Your task to perform on an android device: refresh tabs in the chrome app Image 0: 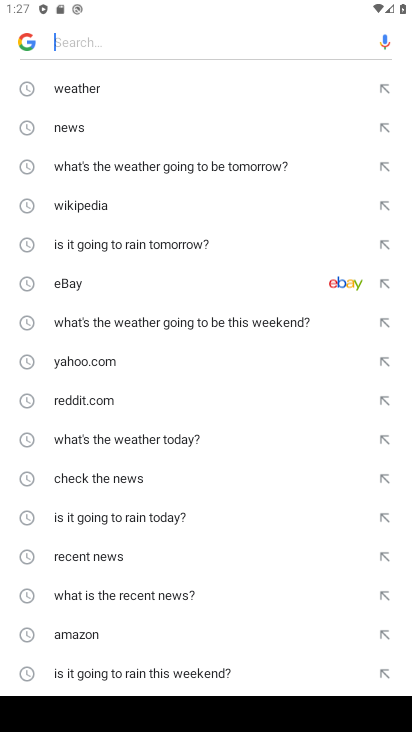
Step 0: press home button
Your task to perform on an android device: refresh tabs in the chrome app Image 1: 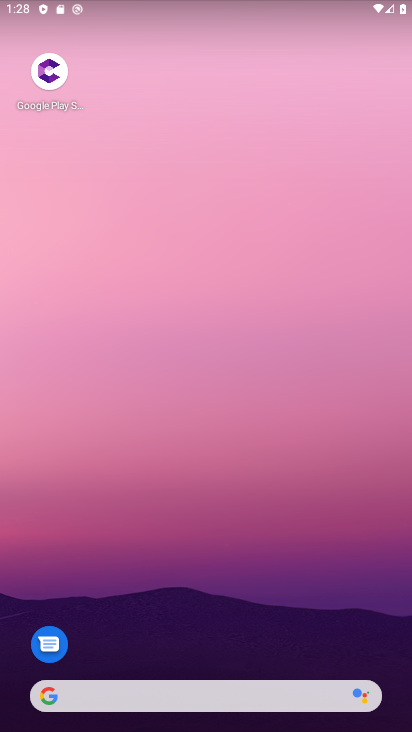
Step 1: drag from (16, 455) to (411, 457)
Your task to perform on an android device: refresh tabs in the chrome app Image 2: 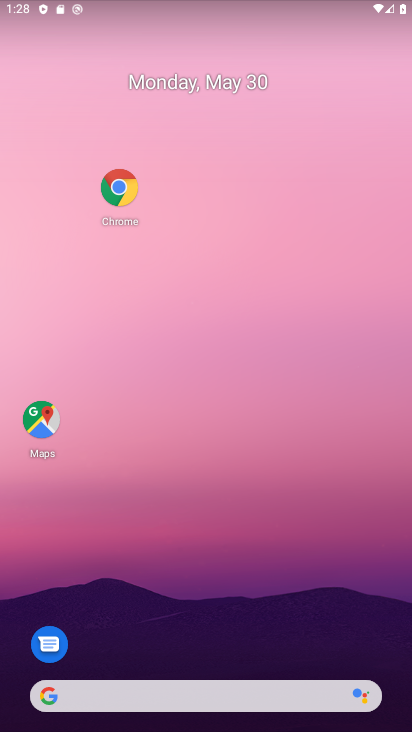
Step 2: click (370, 368)
Your task to perform on an android device: refresh tabs in the chrome app Image 3: 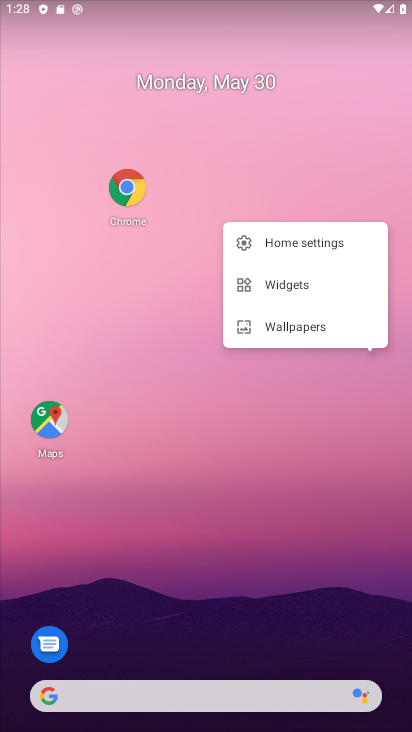
Step 3: click (130, 191)
Your task to perform on an android device: refresh tabs in the chrome app Image 4: 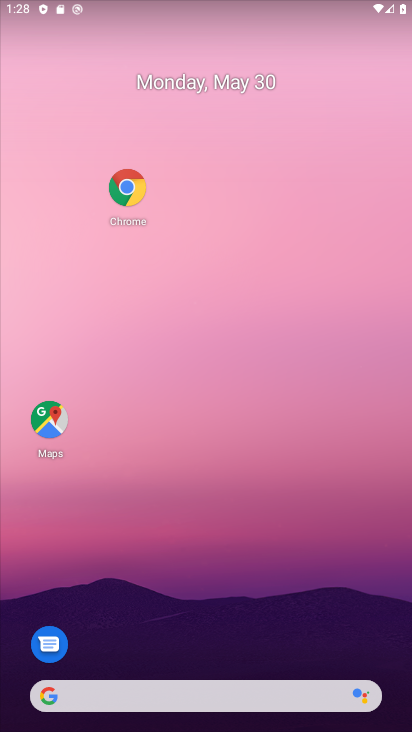
Step 4: click (130, 191)
Your task to perform on an android device: refresh tabs in the chrome app Image 5: 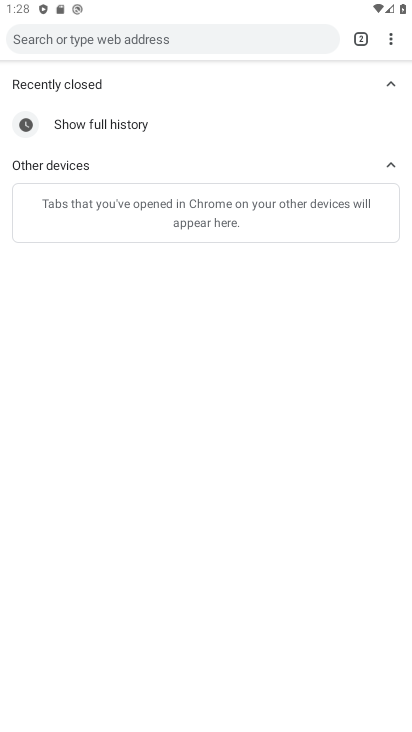
Step 5: click (397, 42)
Your task to perform on an android device: refresh tabs in the chrome app Image 6: 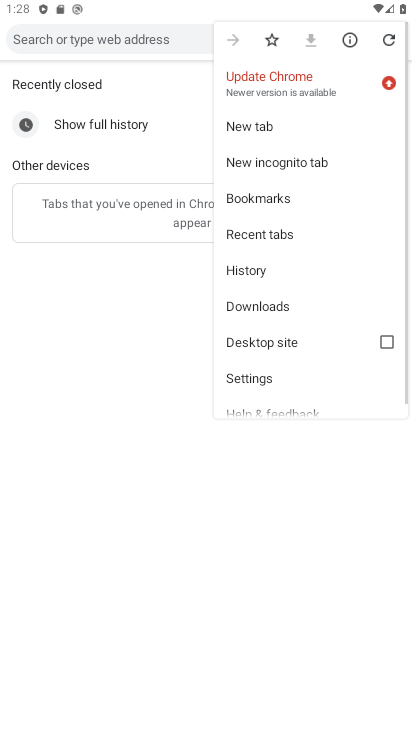
Step 6: click (397, 42)
Your task to perform on an android device: refresh tabs in the chrome app Image 7: 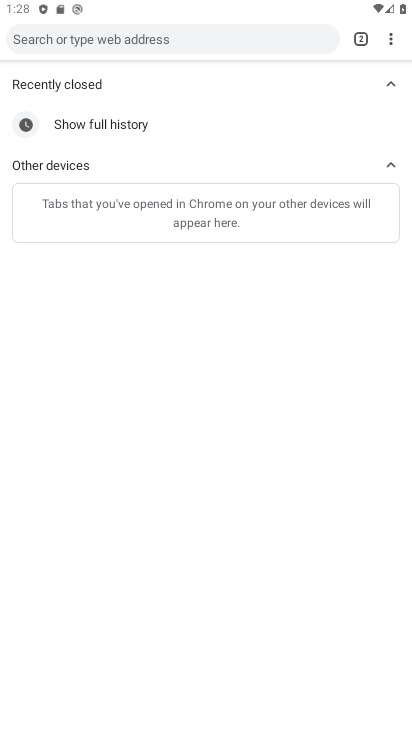
Step 7: click (389, 49)
Your task to perform on an android device: refresh tabs in the chrome app Image 8: 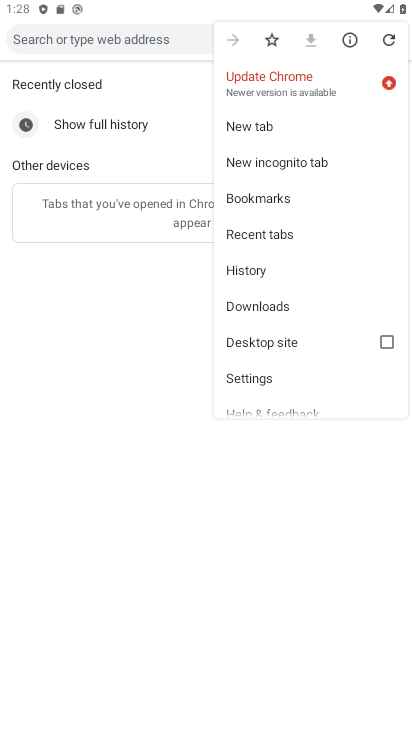
Step 8: click (384, 43)
Your task to perform on an android device: refresh tabs in the chrome app Image 9: 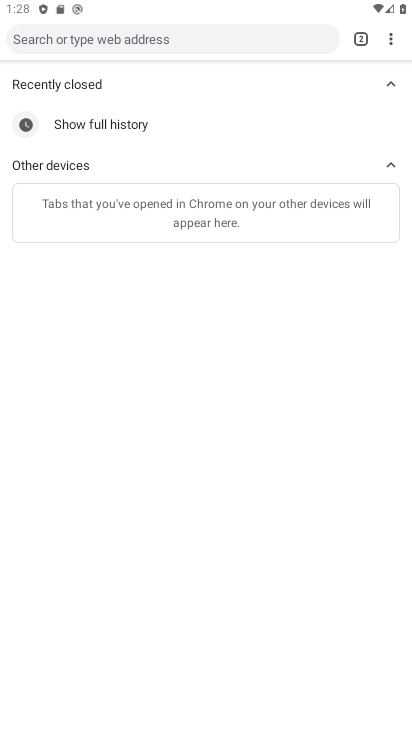
Step 9: task complete